Your task to perform on an android device: Show me popular videos on Youtube Image 0: 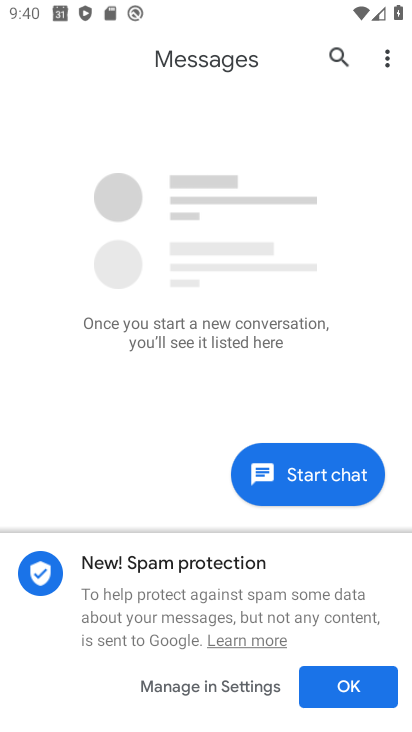
Step 0: press home button
Your task to perform on an android device: Show me popular videos on Youtube Image 1: 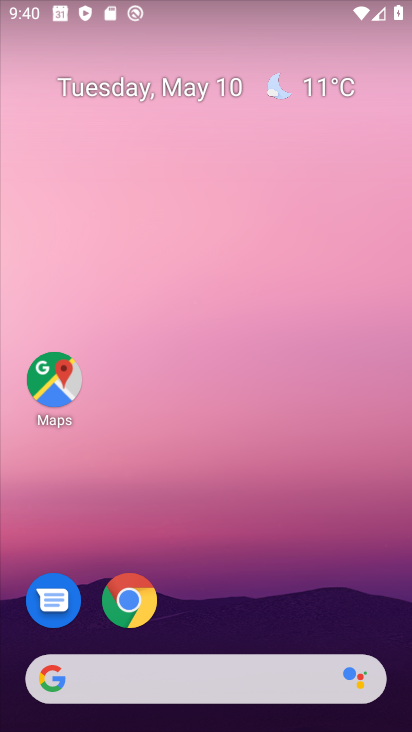
Step 1: drag from (285, 456) to (286, 3)
Your task to perform on an android device: Show me popular videos on Youtube Image 2: 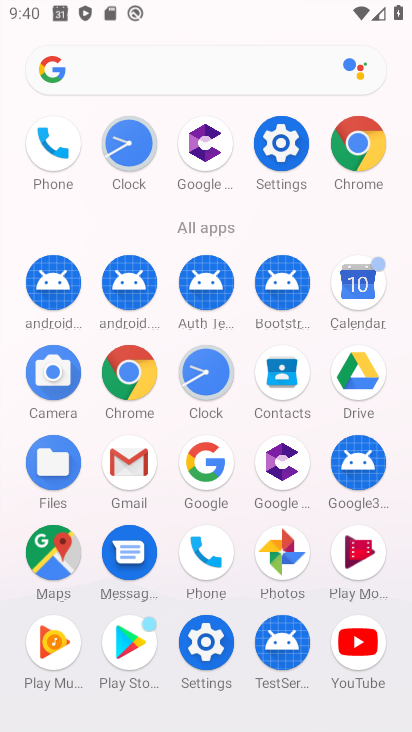
Step 2: click (358, 653)
Your task to perform on an android device: Show me popular videos on Youtube Image 3: 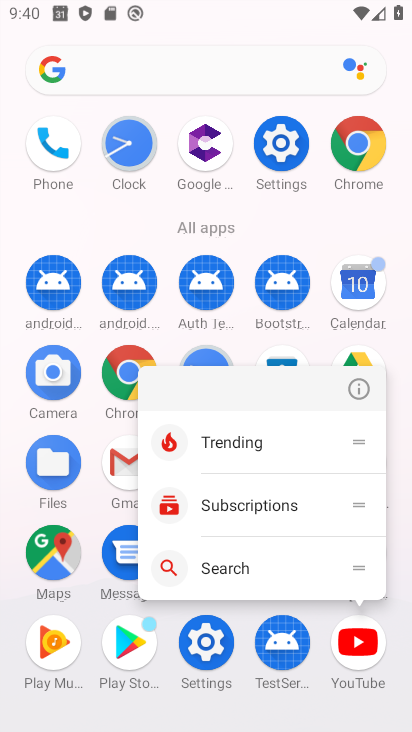
Step 3: click (358, 651)
Your task to perform on an android device: Show me popular videos on Youtube Image 4: 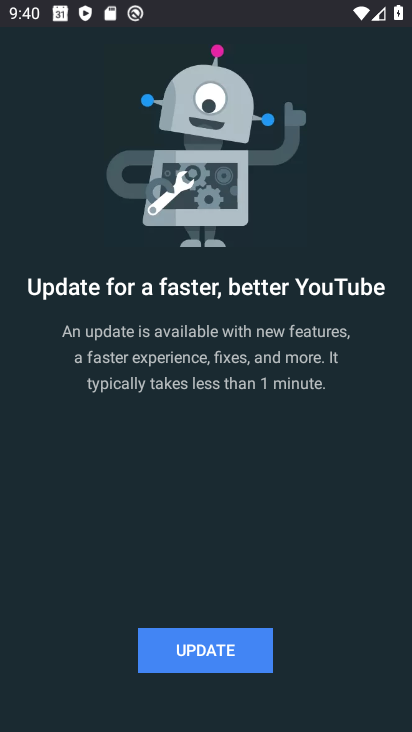
Step 4: click (213, 640)
Your task to perform on an android device: Show me popular videos on Youtube Image 5: 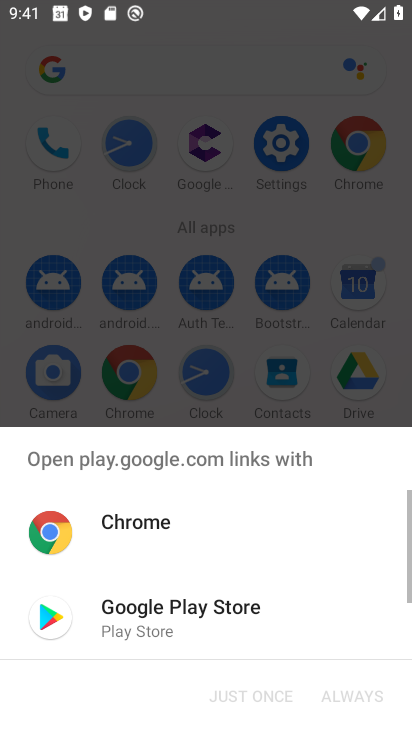
Step 5: click (142, 604)
Your task to perform on an android device: Show me popular videos on Youtube Image 6: 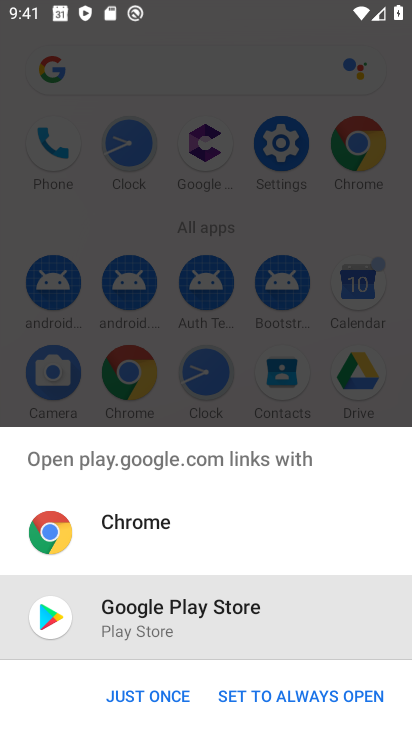
Step 6: click (143, 700)
Your task to perform on an android device: Show me popular videos on Youtube Image 7: 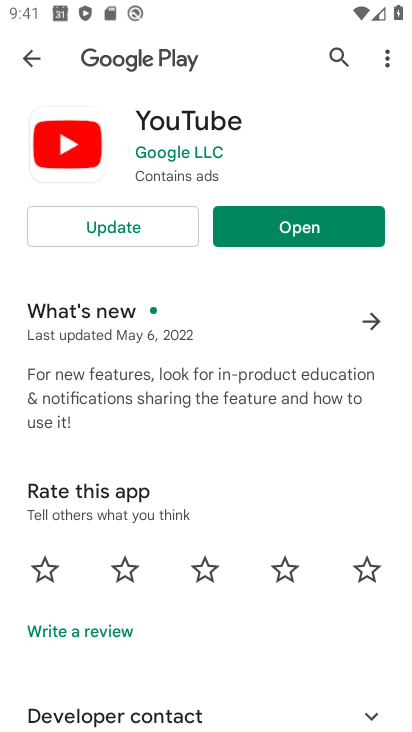
Step 7: click (106, 240)
Your task to perform on an android device: Show me popular videos on Youtube Image 8: 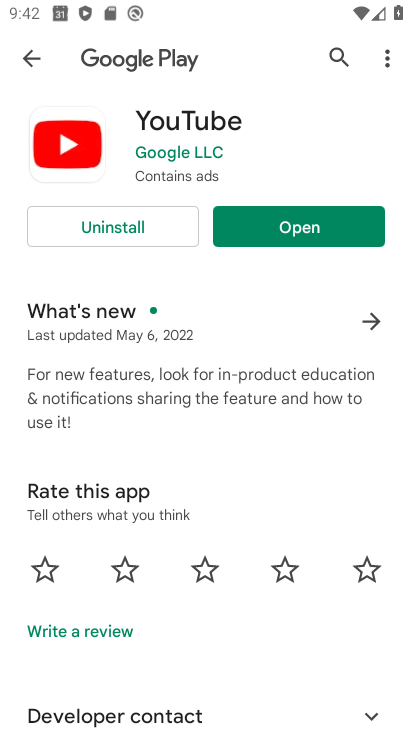
Step 8: click (309, 212)
Your task to perform on an android device: Show me popular videos on Youtube Image 9: 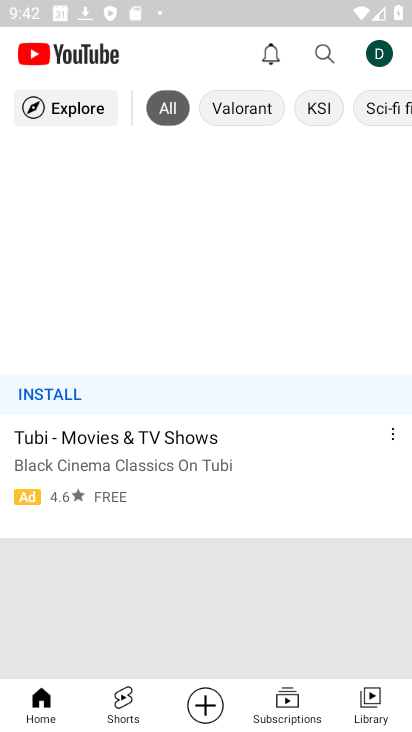
Step 9: click (324, 50)
Your task to perform on an android device: Show me popular videos on Youtube Image 10: 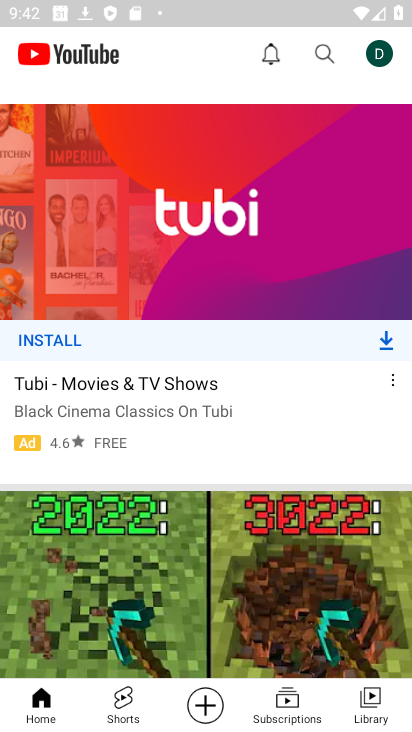
Step 10: click (324, 50)
Your task to perform on an android device: Show me popular videos on Youtube Image 11: 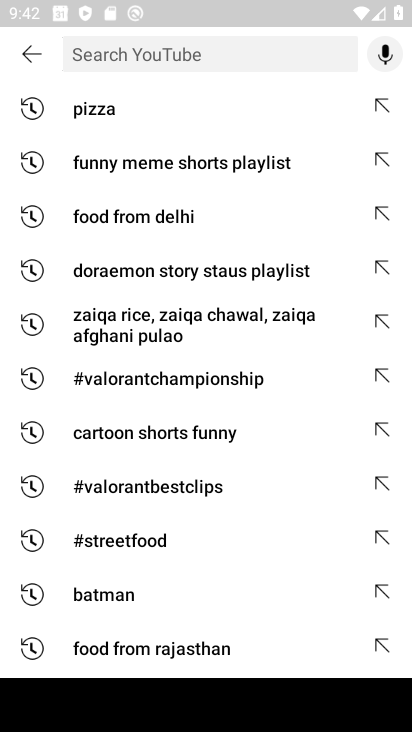
Step 11: type "popular  viedeos"
Your task to perform on an android device: Show me popular videos on Youtube Image 12: 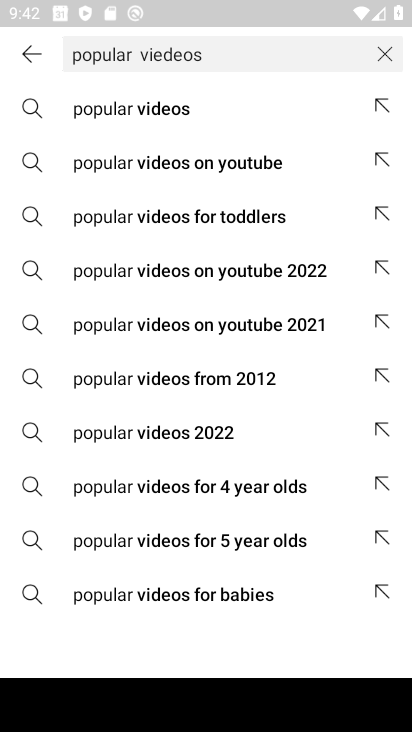
Step 12: click (136, 115)
Your task to perform on an android device: Show me popular videos on Youtube Image 13: 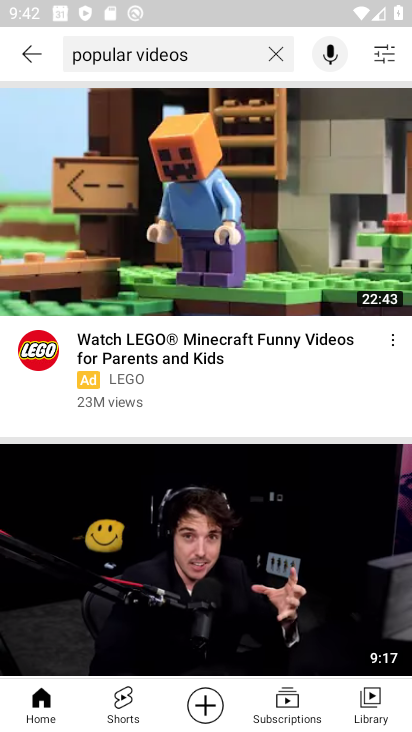
Step 13: task complete